Your task to perform on an android device: set the stopwatch Image 0: 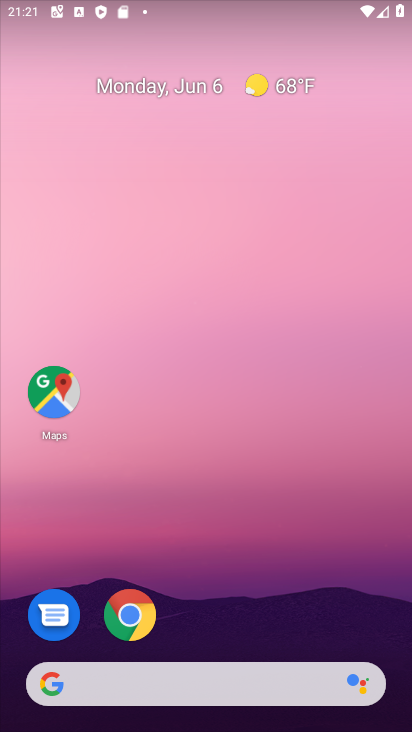
Step 0: drag from (391, 693) to (324, 85)
Your task to perform on an android device: set the stopwatch Image 1: 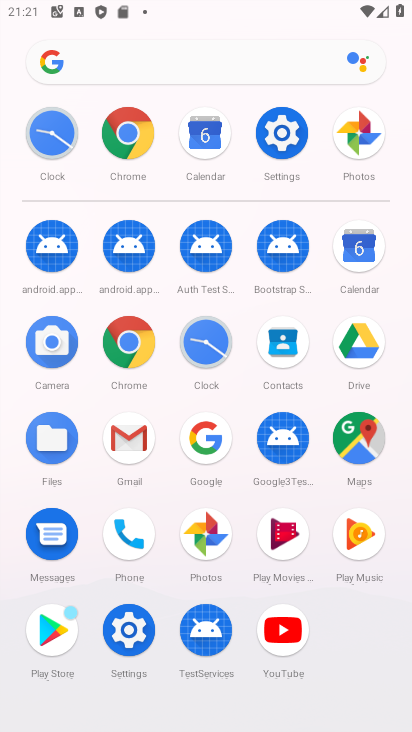
Step 1: click (273, 130)
Your task to perform on an android device: set the stopwatch Image 2: 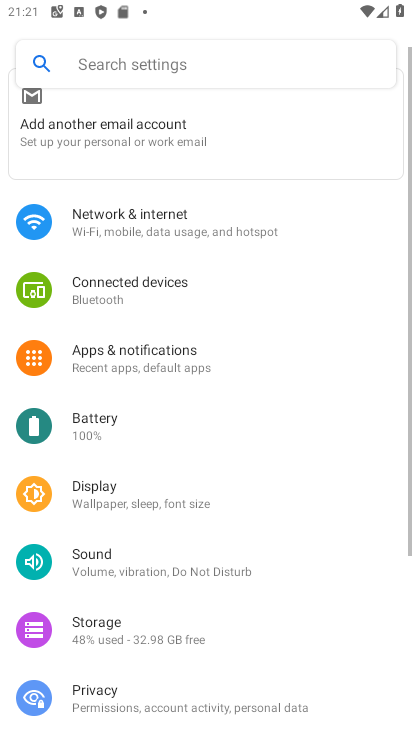
Step 2: press home button
Your task to perform on an android device: set the stopwatch Image 3: 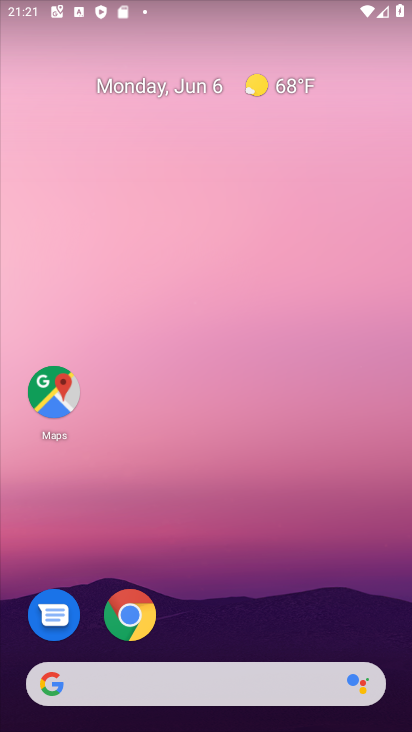
Step 3: drag from (376, 512) to (310, 81)
Your task to perform on an android device: set the stopwatch Image 4: 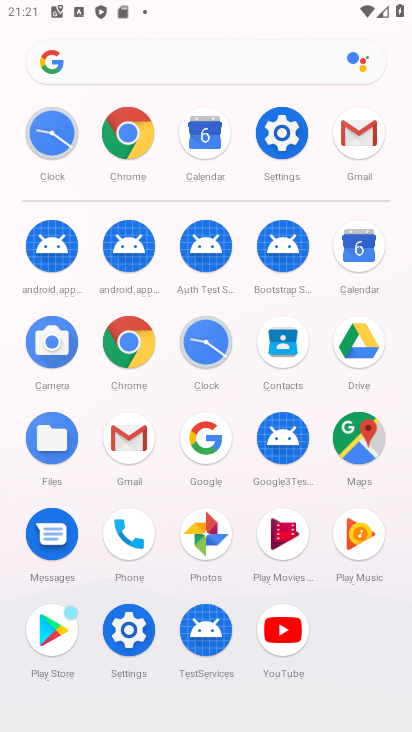
Step 4: click (196, 346)
Your task to perform on an android device: set the stopwatch Image 5: 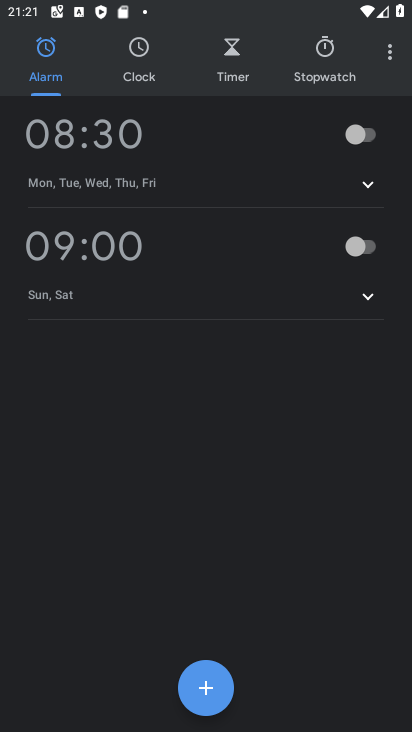
Step 5: click (233, 59)
Your task to perform on an android device: set the stopwatch Image 6: 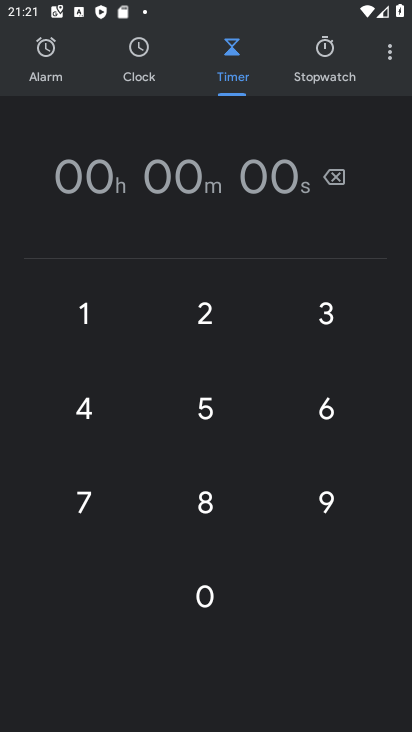
Step 6: click (326, 315)
Your task to perform on an android device: set the stopwatch Image 7: 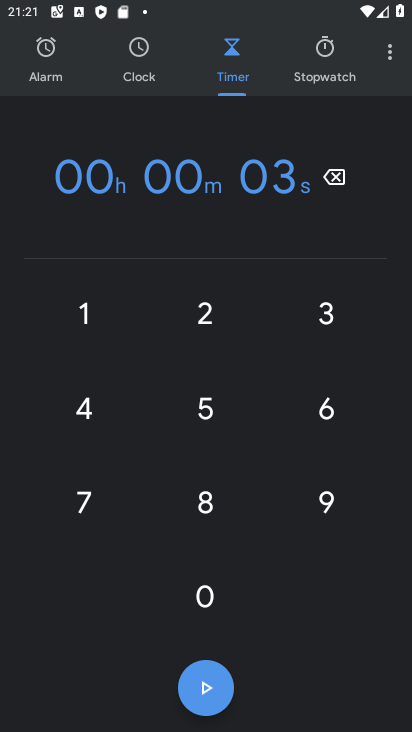
Step 7: click (326, 315)
Your task to perform on an android device: set the stopwatch Image 8: 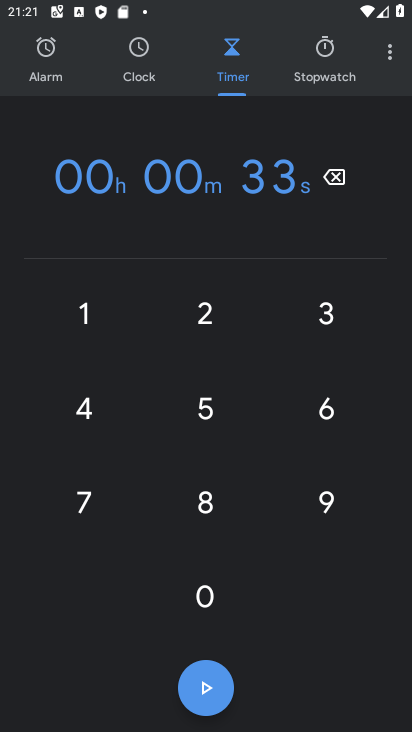
Step 8: click (212, 677)
Your task to perform on an android device: set the stopwatch Image 9: 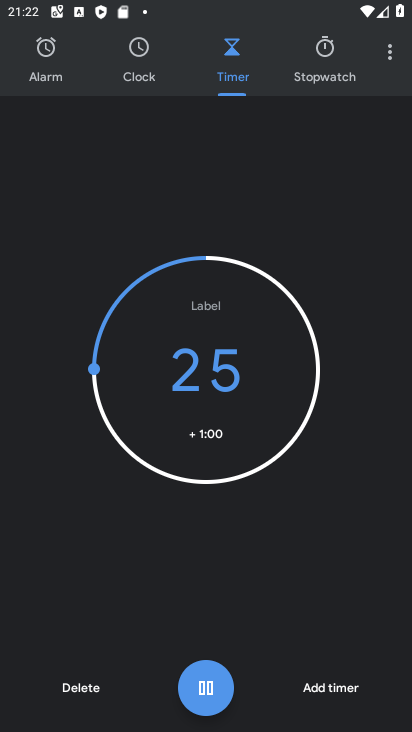
Step 9: task complete